Your task to perform on an android device: open the mobile data screen to see how much data has been used Image 0: 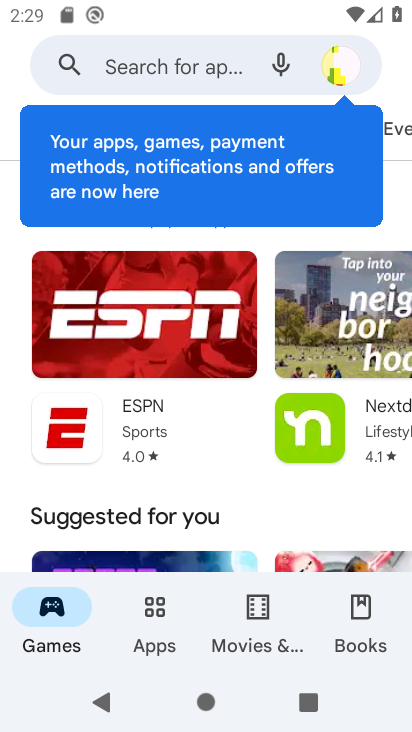
Step 0: press home button
Your task to perform on an android device: open the mobile data screen to see how much data has been used Image 1: 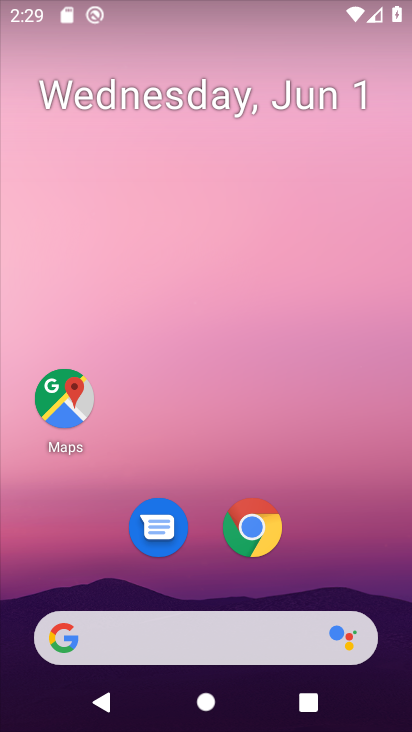
Step 1: drag from (232, 577) to (317, 11)
Your task to perform on an android device: open the mobile data screen to see how much data has been used Image 2: 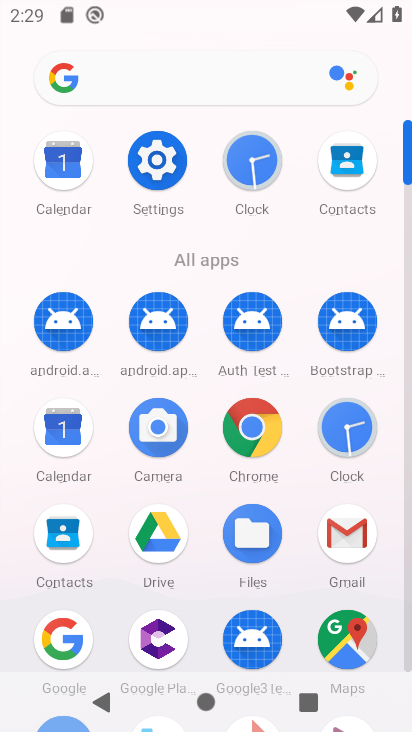
Step 2: click (159, 179)
Your task to perform on an android device: open the mobile data screen to see how much data has been used Image 3: 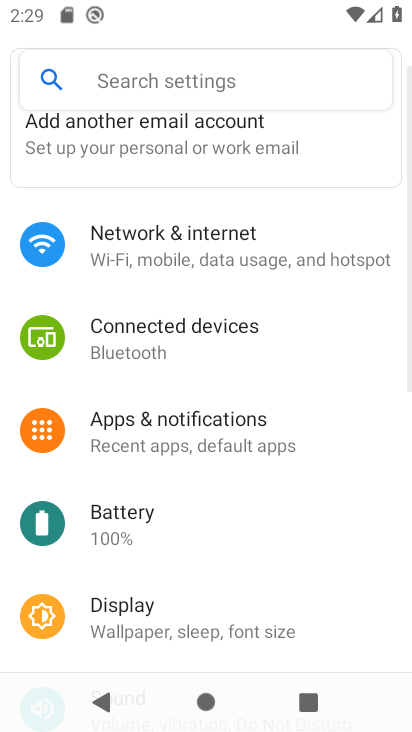
Step 3: drag from (178, 206) to (171, 618)
Your task to perform on an android device: open the mobile data screen to see how much data has been used Image 4: 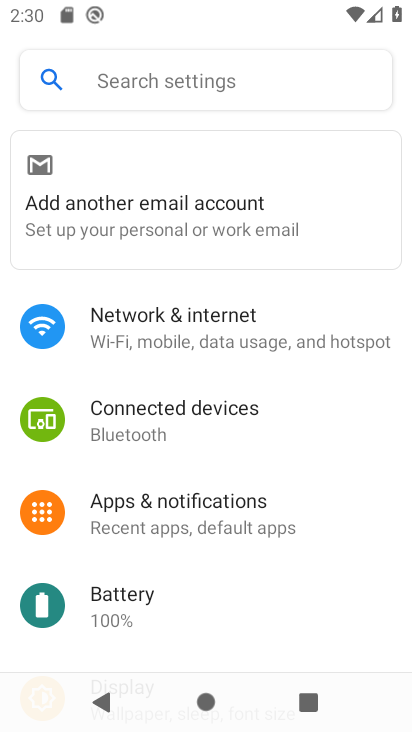
Step 4: click (203, 344)
Your task to perform on an android device: open the mobile data screen to see how much data has been used Image 5: 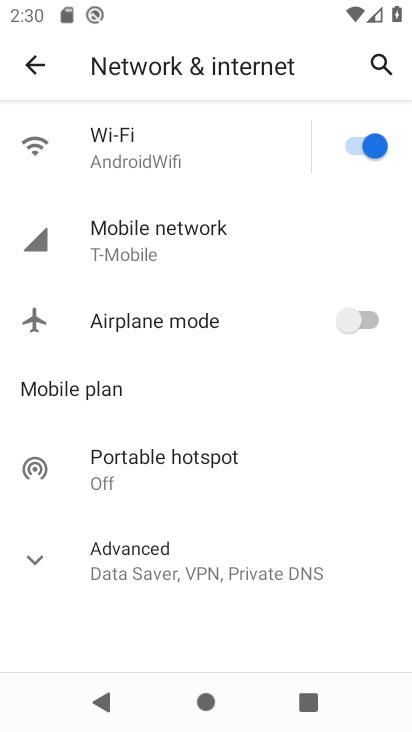
Step 5: click (180, 239)
Your task to perform on an android device: open the mobile data screen to see how much data has been used Image 6: 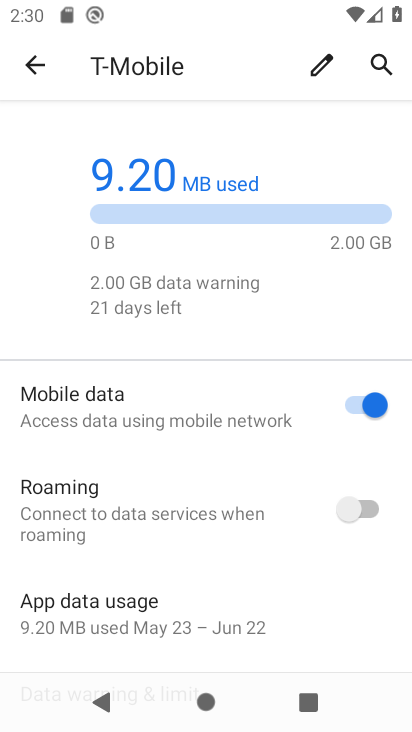
Step 6: click (160, 633)
Your task to perform on an android device: open the mobile data screen to see how much data has been used Image 7: 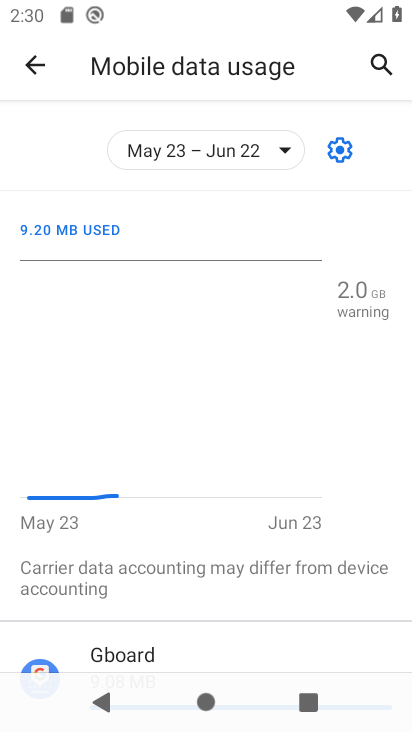
Step 7: task complete